Your task to perform on an android device: find photos in the google photos app Image 0: 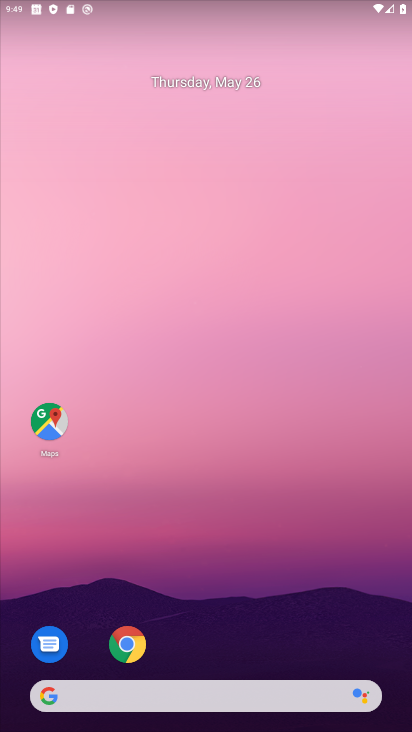
Step 0: drag from (270, 708) to (193, 221)
Your task to perform on an android device: find photos in the google photos app Image 1: 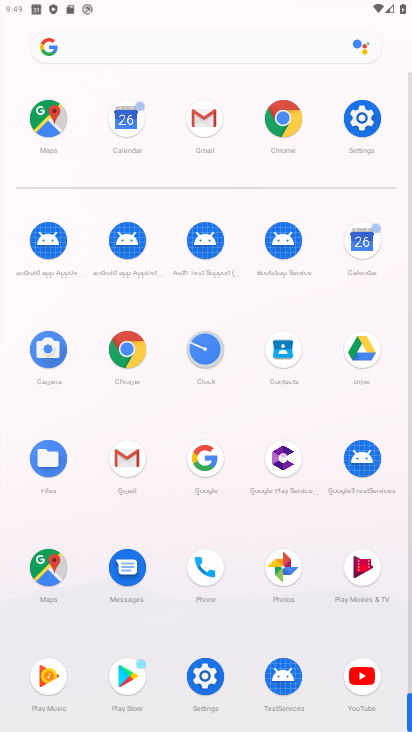
Step 1: click (287, 564)
Your task to perform on an android device: find photos in the google photos app Image 2: 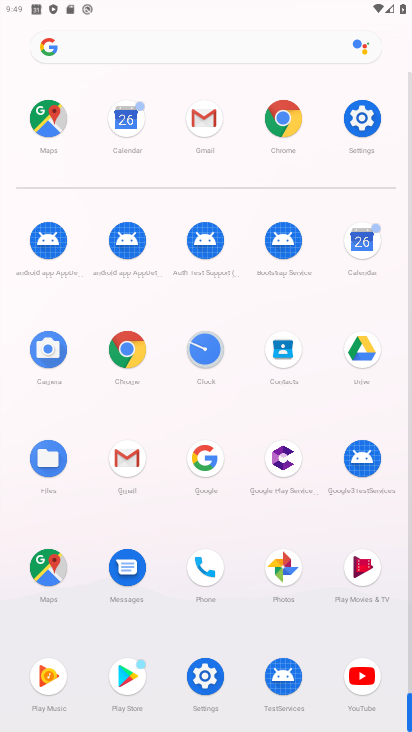
Step 2: click (287, 564)
Your task to perform on an android device: find photos in the google photos app Image 3: 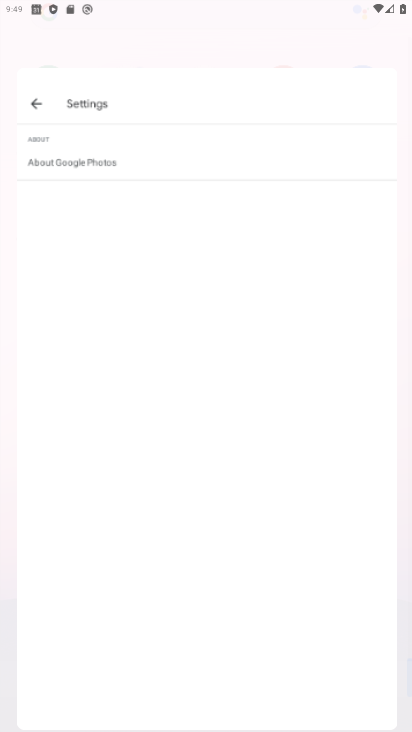
Step 3: click (287, 573)
Your task to perform on an android device: find photos in the google photos app Image 4: 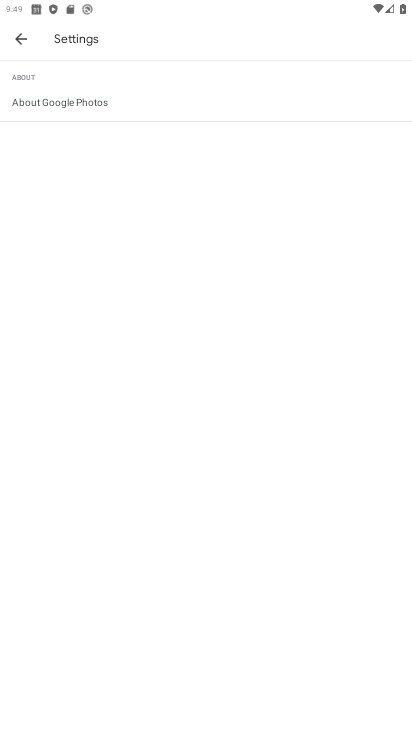
Step 4: click (287, 573)
Your task to perform on an android device: find photos in the google photos app Image 5: 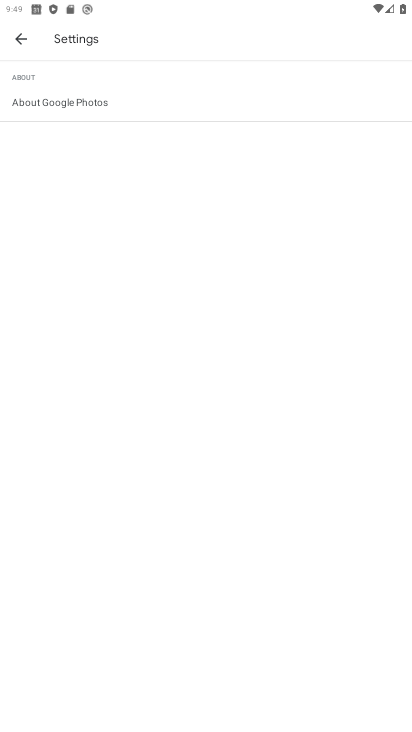
Step 5: click (288, 574)
Your task to perform on an android device: find photos in the google photos app Image 6: 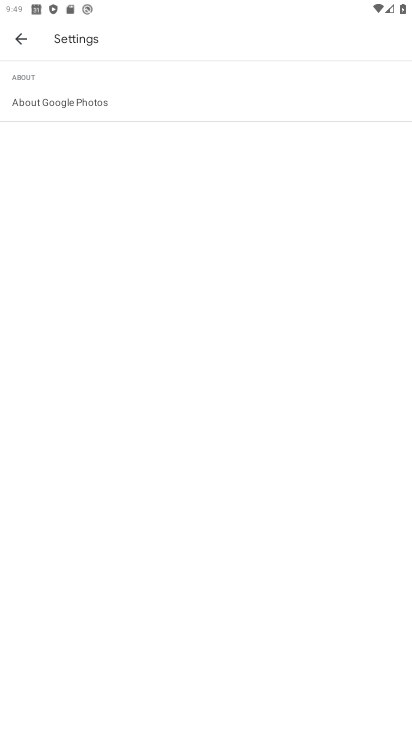
Step 6: click (18, 24)
Your task to perform on an android device: find photos in the google photos app Image 7: 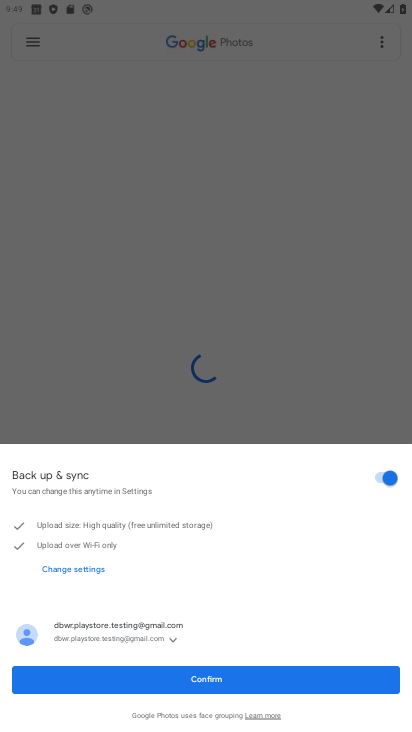
Step 7: click (246, 681)
Your task to perform on an android device: find photos in the google photos app Image 8: 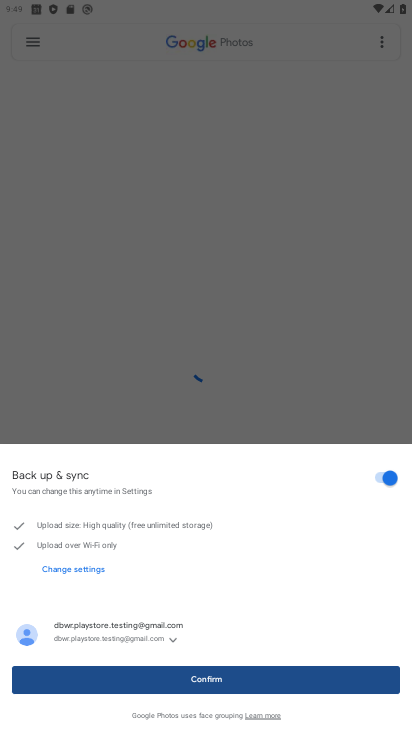
Step 8: click (246, 686)
Your task to perform on an android device: find photos in the google photos app Image 9: 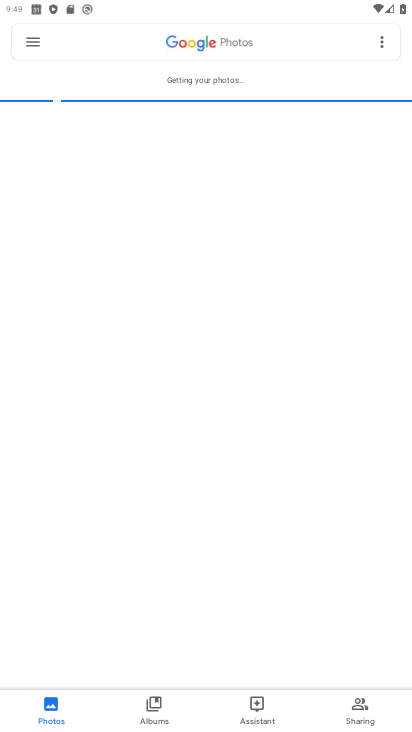
Step 9: click (247, 688)
Your task to perform on an android device: find photos in the google photos app Image 10: 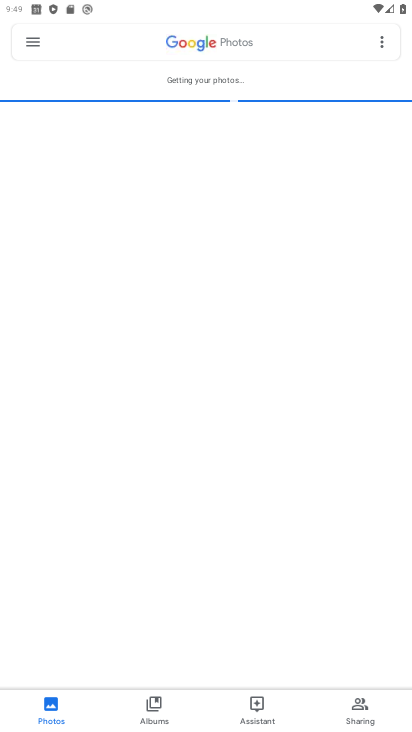
Step 10: click (265, 687)
Your task to perform on an android device: find photos in the google photos app Image 11: 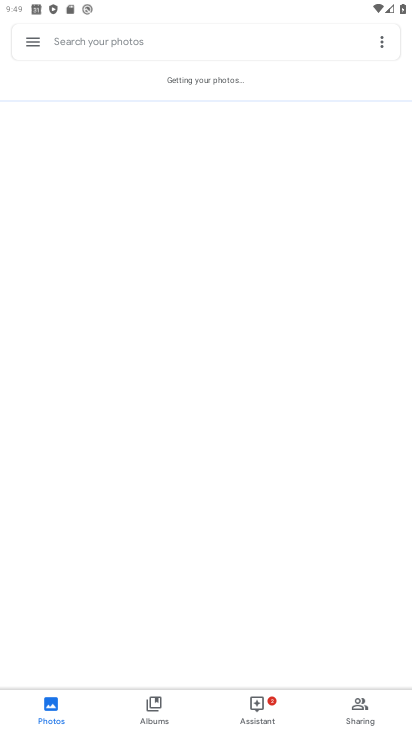
Step 11: task complete